Your task to perform on an android device: check the backup settings in the google photos Image 0: 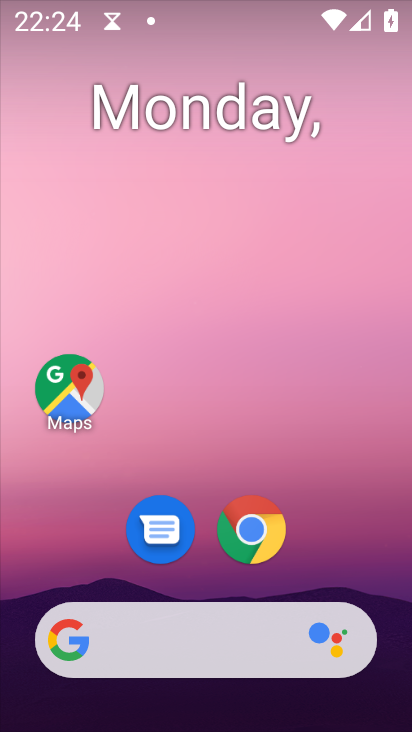
Step 0: drag from (335, 559) to (231, 137)
Your task to perform on an android device: check the backup settings in the google photos Image 1: 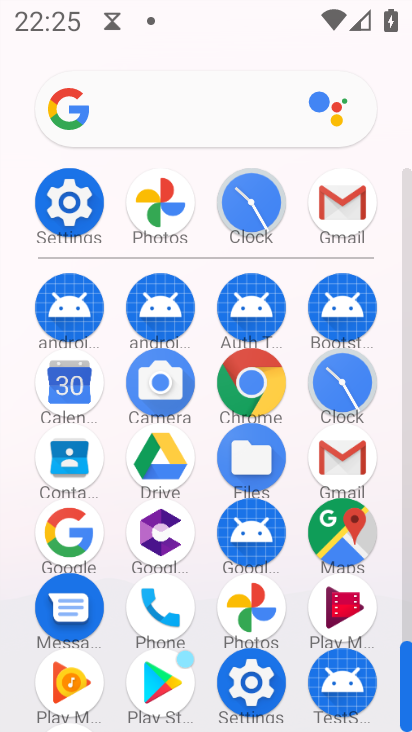
Step 1: click (161, 205)
Your task to perform on an android device: check the backup settings in the google photos Image 2: 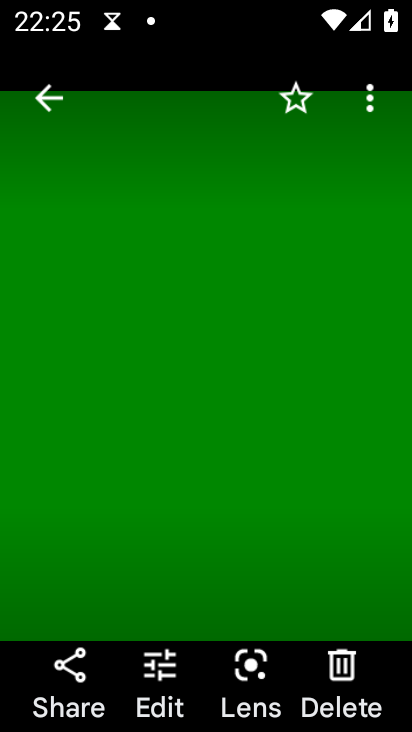
Step 2: press back button
Your task to perform on an android device: check the backup settings in the google photos Image 3: 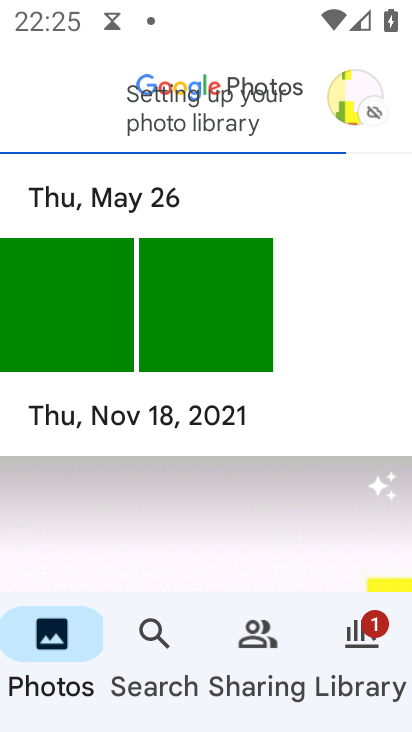
Step 3: click (356, 98)
Your task to perform on an android device: check the backup settings in the google photos Image 4: 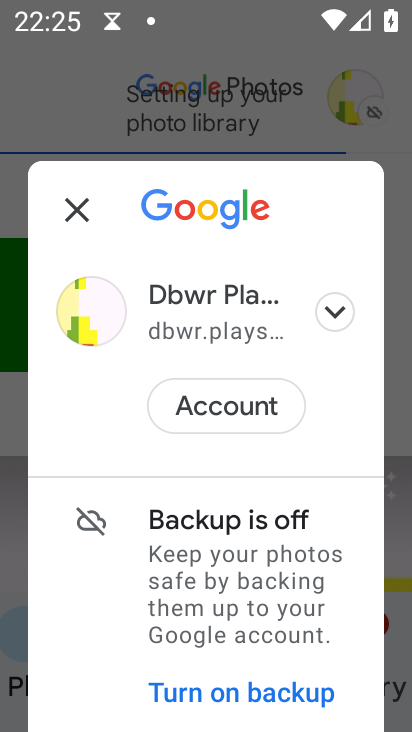
Step 4: drag from (233, 572) to (316, 445)
Your task to perform on an android device: check the backup settings in the google photos Image 5: 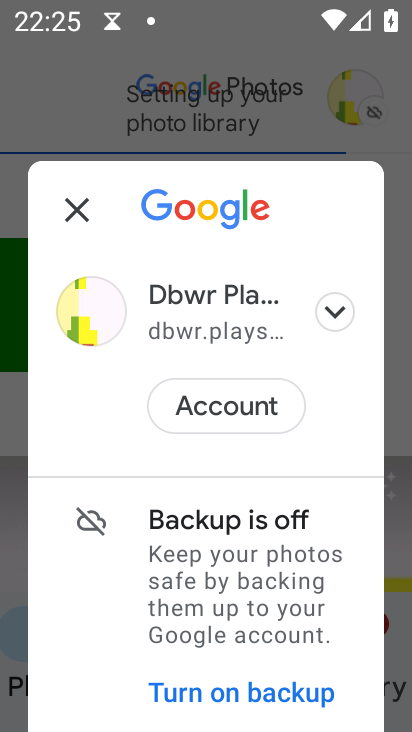
Step 5: drag from (235, 598) to (268, 424)
Your task to perform on an android device: check the backup settings in the google photos Image 6: 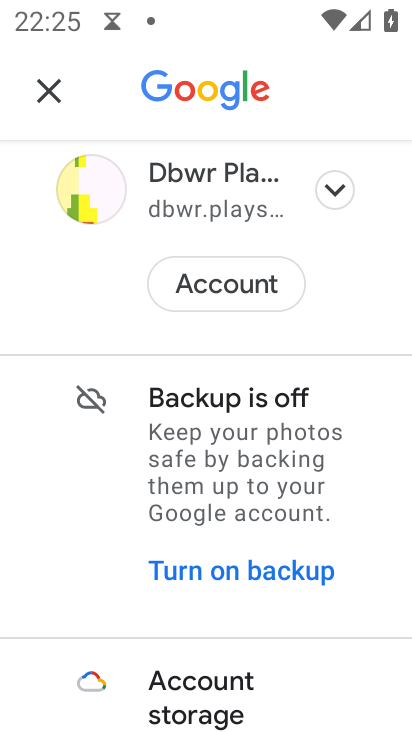
Step 6: drag from (216, 671) to (262, 433)
Your task to perform on an android device: check the backup settings in the google photos Image 7: 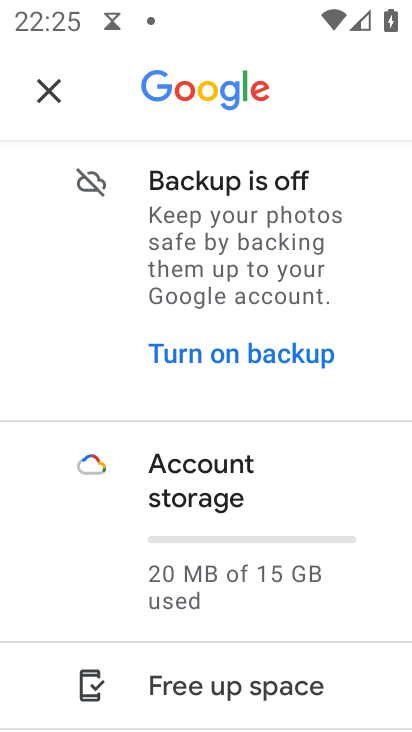
Step 7: drag from (193, 655) to (274, 439)
Your task to perform on an android device: check the backup settings in the google photos Image 8: 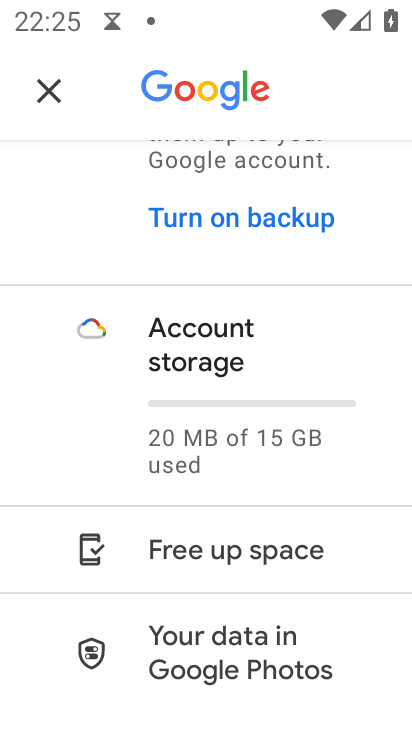
Step 8: drag from (231, 646) to (283, 458)
Your task to perform on an android device: check the backup settings in the google photos Image 9: 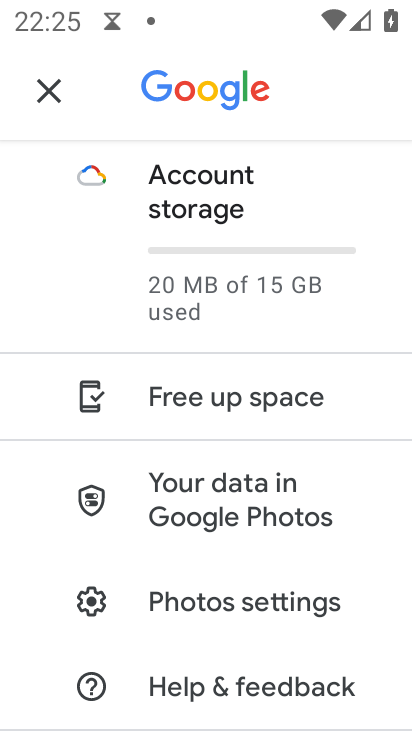
Step 9: click (225, 617)
Your task to perform on an android device: check the backup settings in the google photos Image 10: 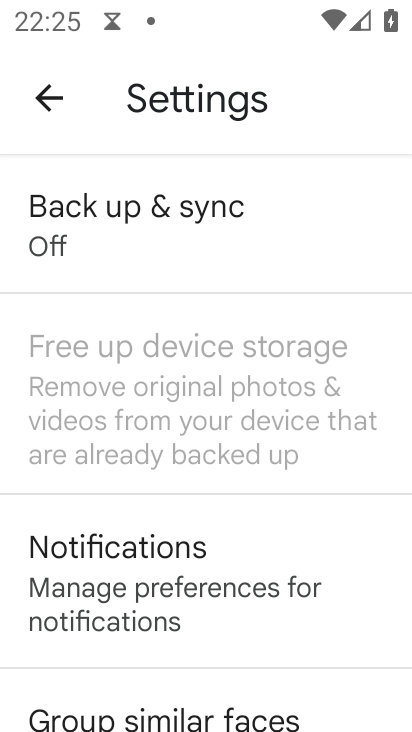
Step 10: click (154, 212)
Your task to perform on an android device: check the backup settings in the google photos Image 11: 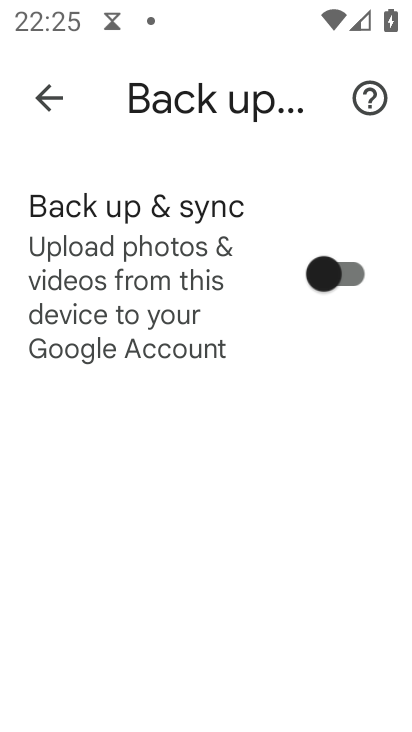
Step 11: task complete